Your task to perform on an android device: Open Amazon Image 0: 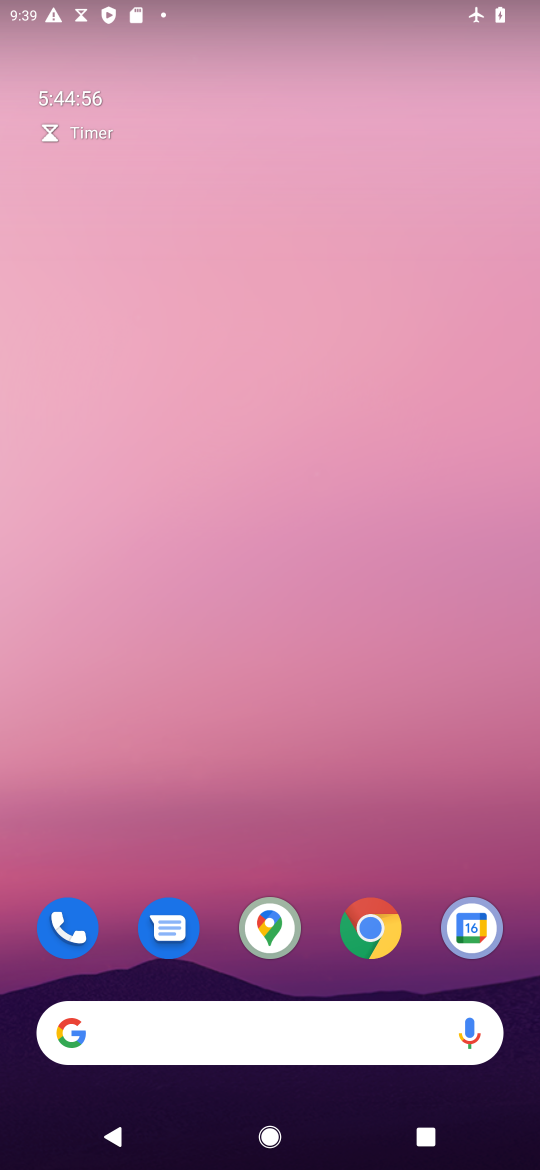
Step 0: click (82, 1029)
Your task to perform on an android device: Open Amazon Image 1: 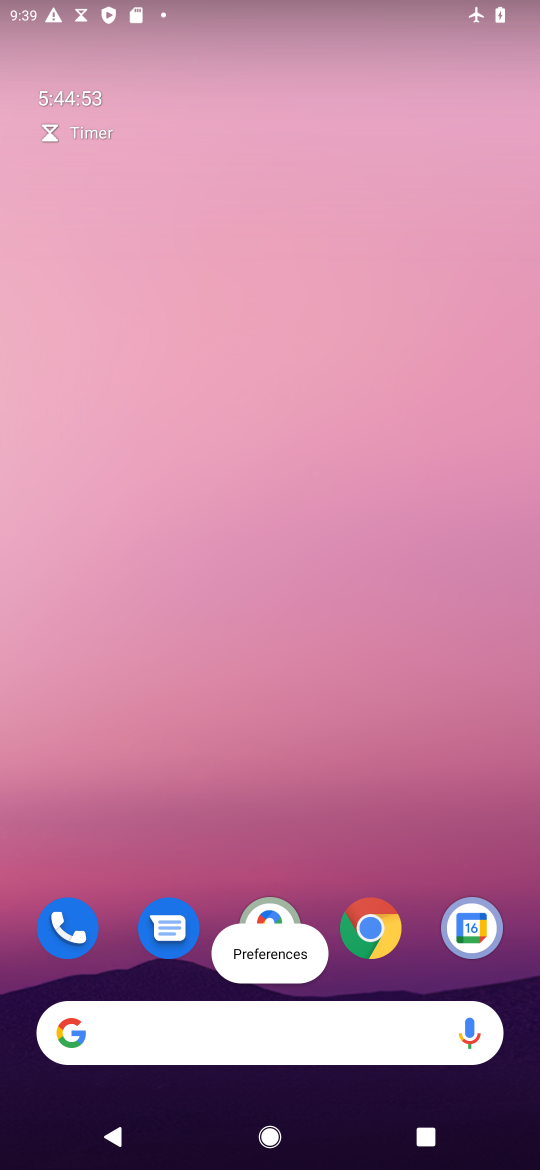
Step 1: click (82, 1029)
Your task to perform on an android device: Open Amazon Image 2: 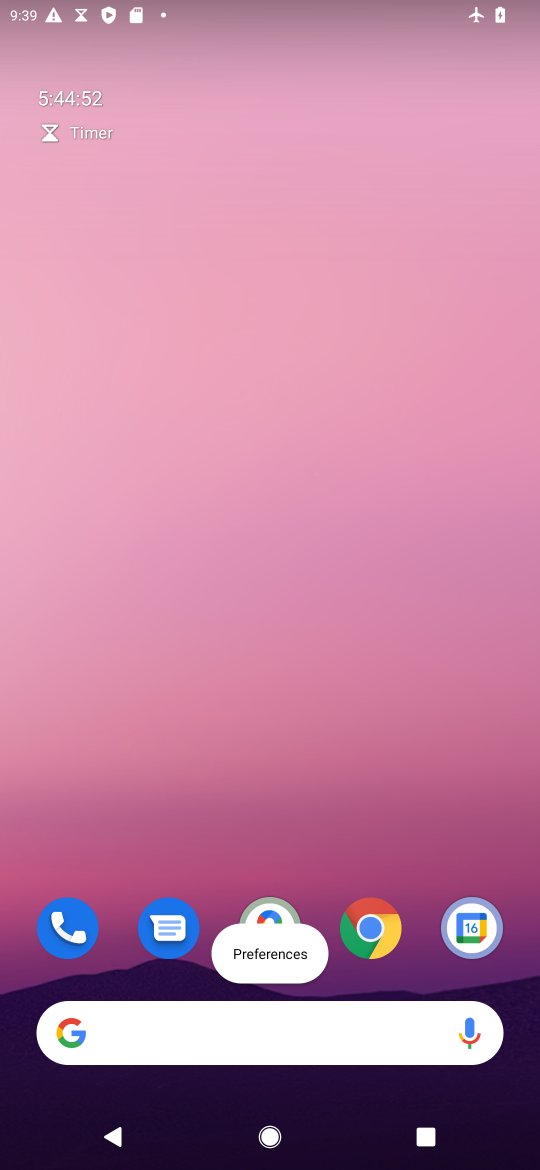
Step 2: click (74, 1034)
Your task to perform on an android device: Open Amazon Image 3: 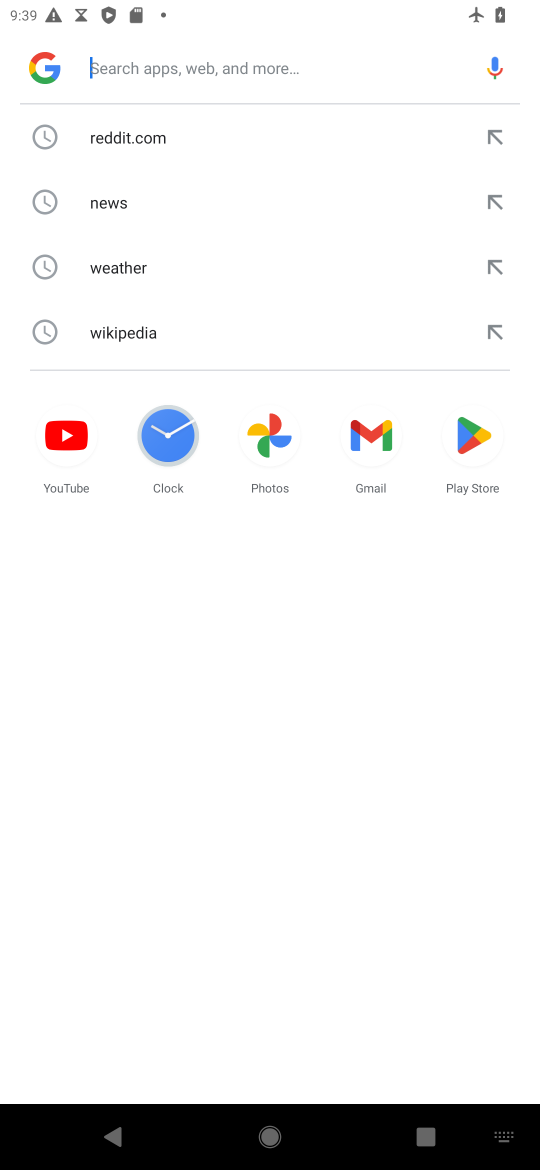
Step 3: type " Amazon"
Your task to perform on an android device: Open Amazon Image 4: 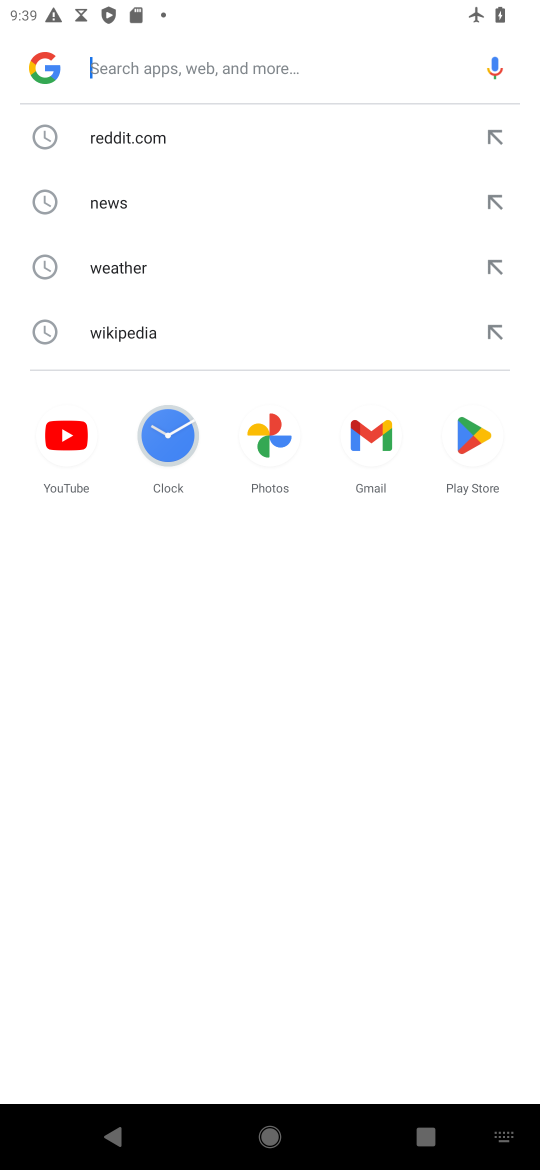
Step 4: click (138, 74)
Your task to perform on an android device: Open Amazon Image 5: 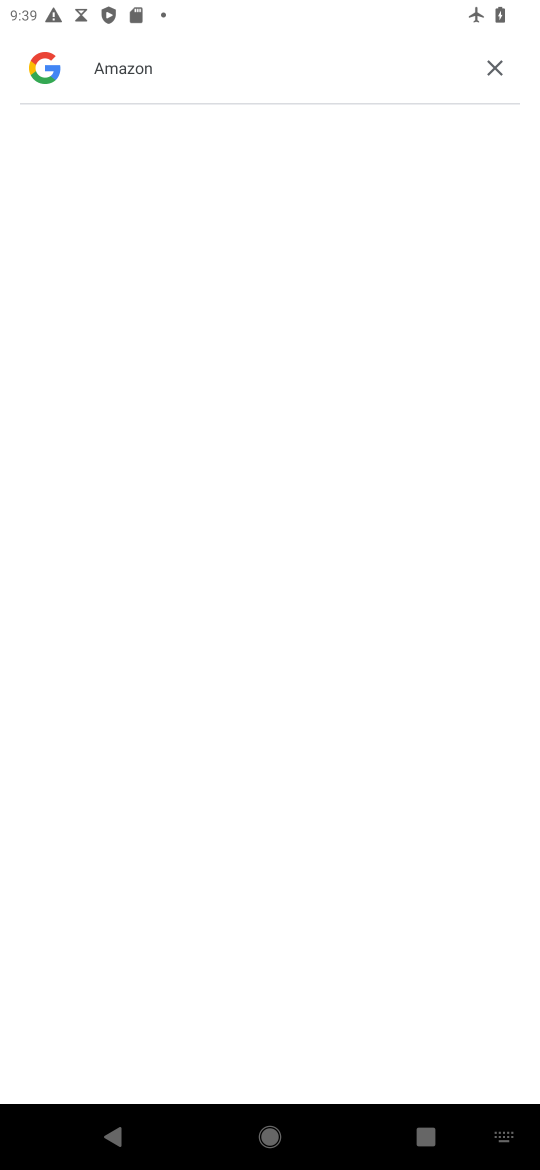
Step 5: click (229, 76)
Your task to perform on an android device: Open Amazon Image 6: 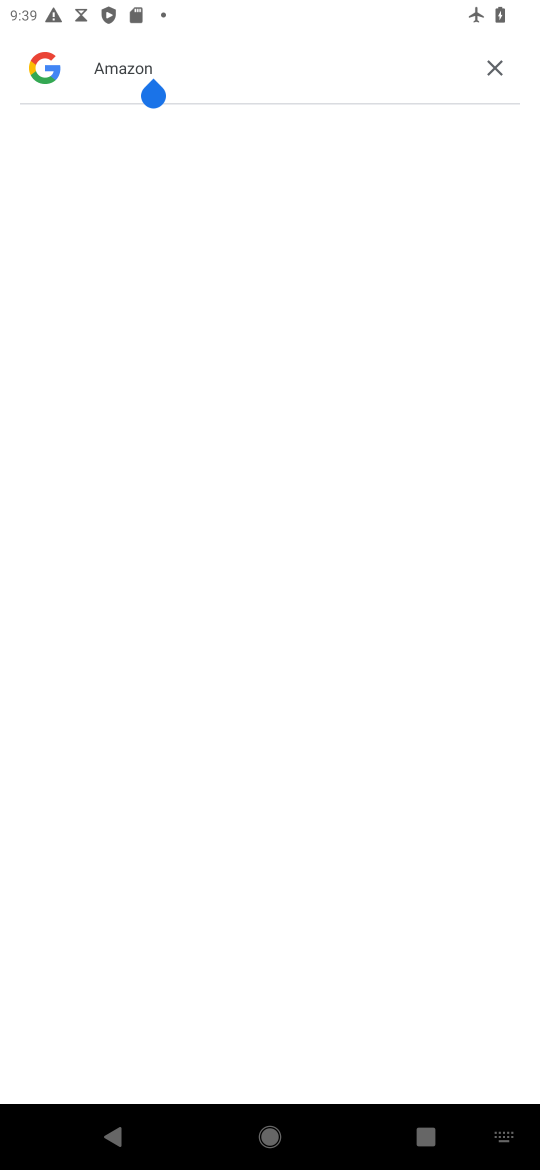
Step 6: press enter
Your task to perform on an android device: Open Amazon Image 7: 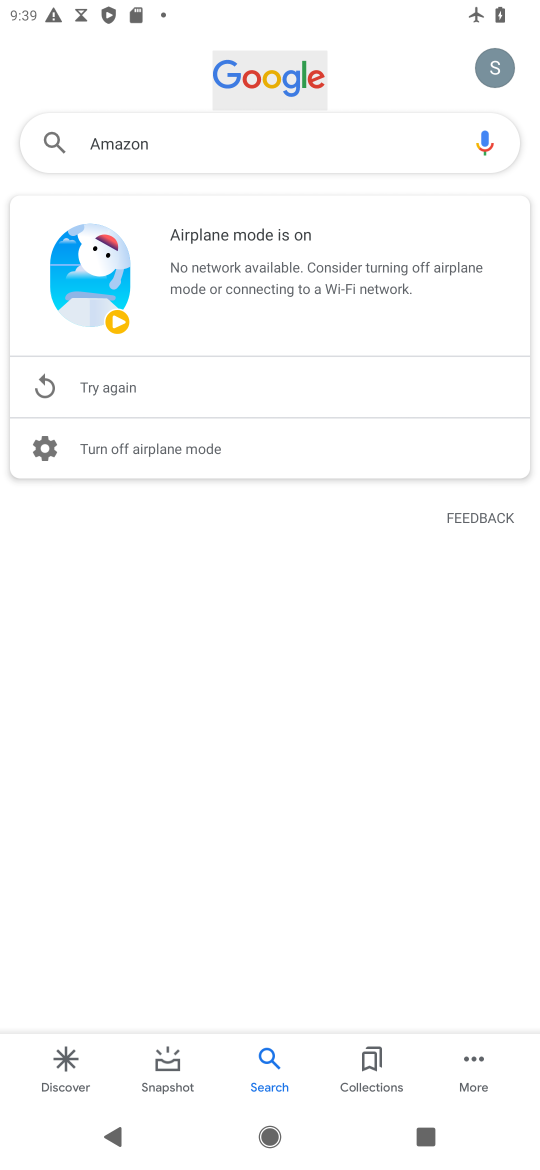
Step 7: drag from (307, 2) to (268, 1169)
Your task to perform on an android device: Open Amazon Image 8: 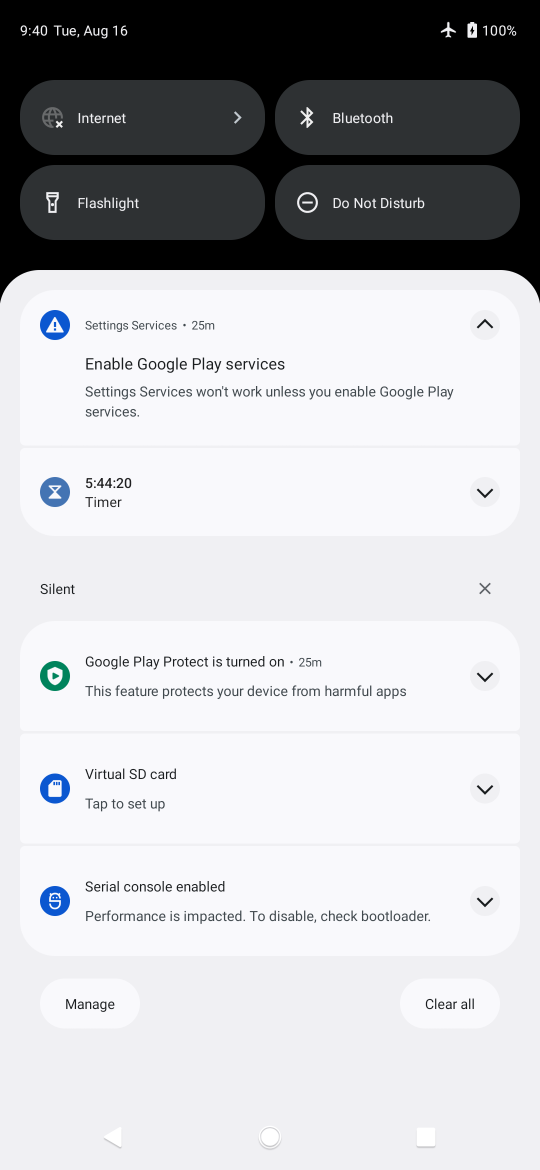
Step 8: press home button
Your task to perform on an android device: Open Amazon Image 9: 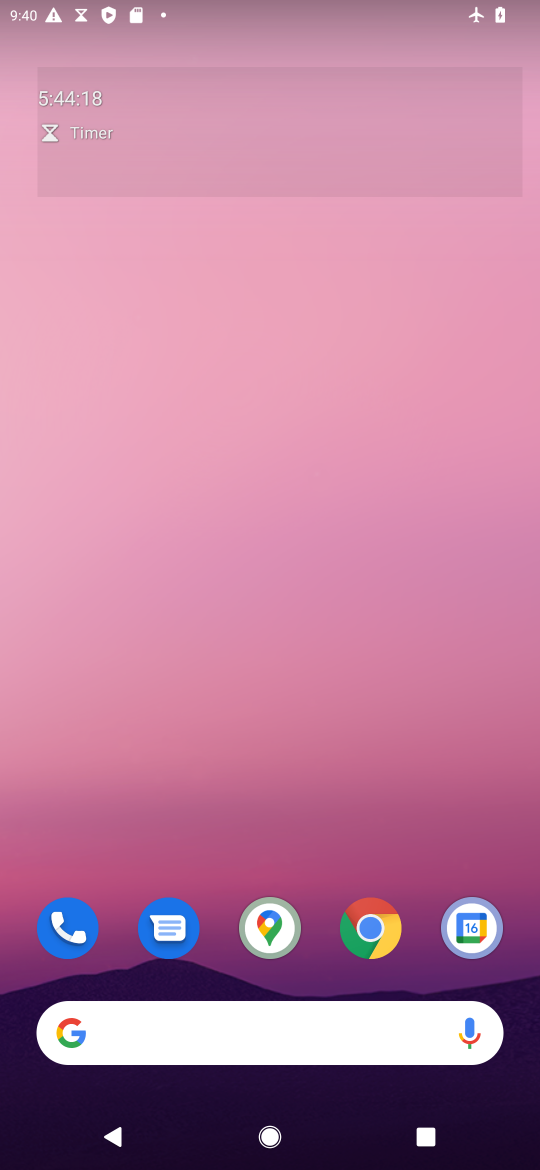
Step 9: drag from (319, 839) to (329, 249)
Your task to perform on an android device: Open Amazon Image 10: 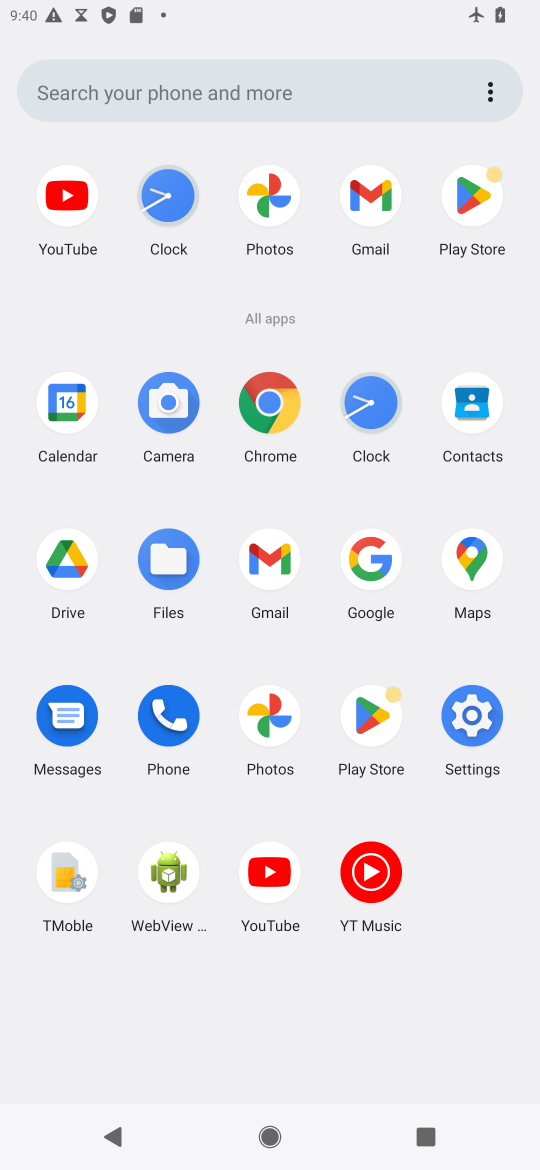
Step 10: click (477, 722)
Your task to perform on an android device: Open Amazon Image 11: 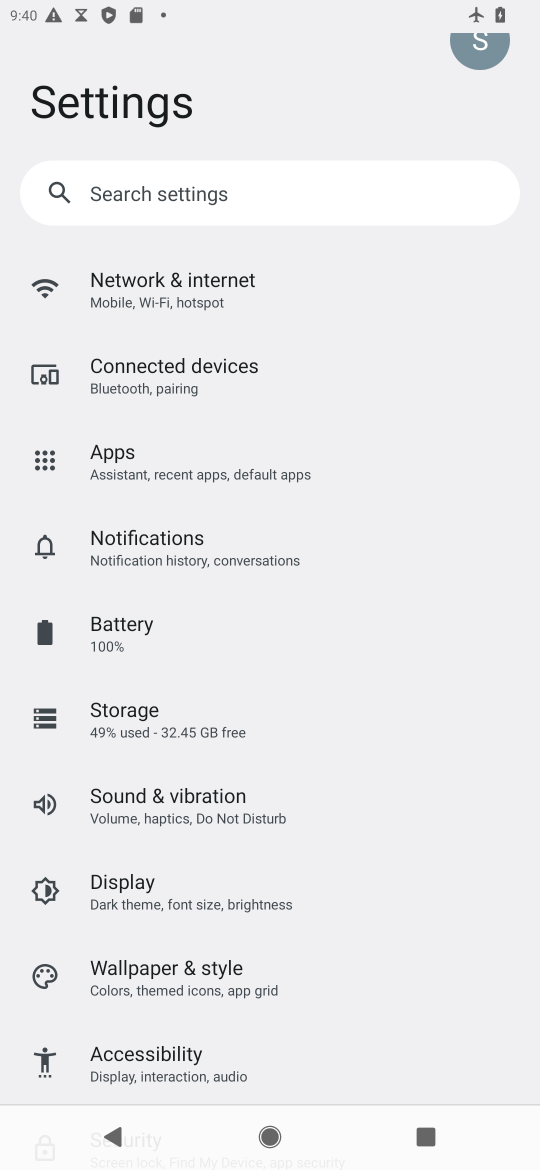
Step 11: click (235, 292)
Your task to perform on an android device: Open Amazon Image 12: 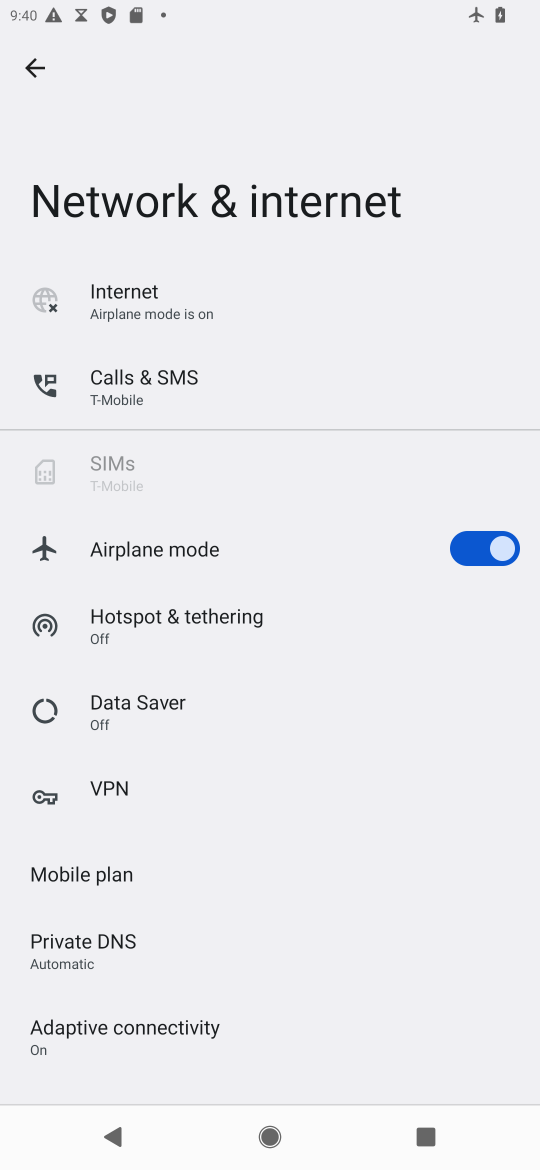
Step 12: click (486, 557)
Your task to perform on an android device: Open Amazon Image 13: 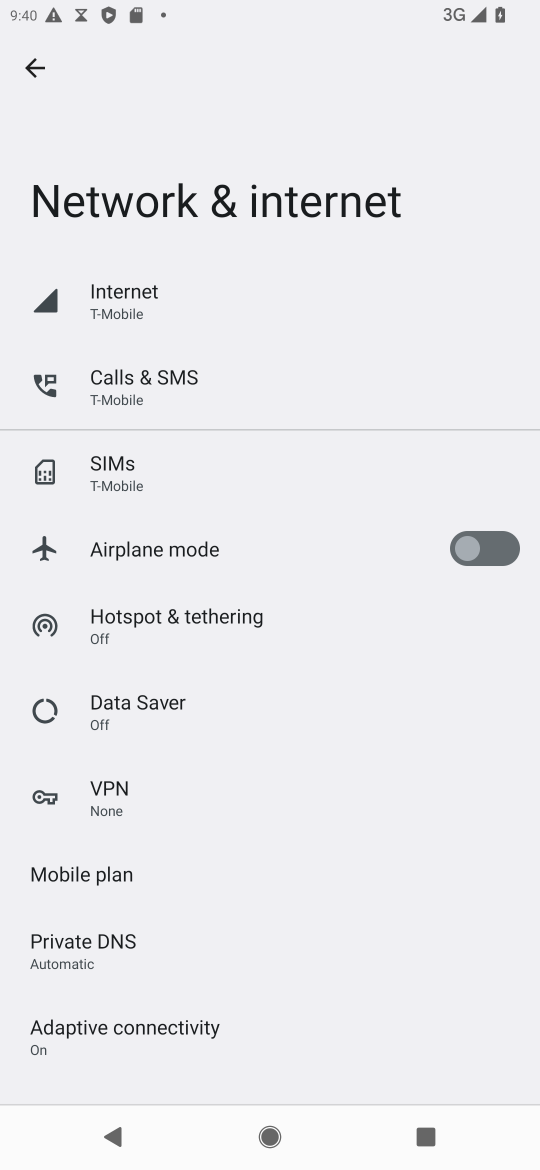
Step 13: press home button
Your task to perform on an android device: Open Amazon Image 14: 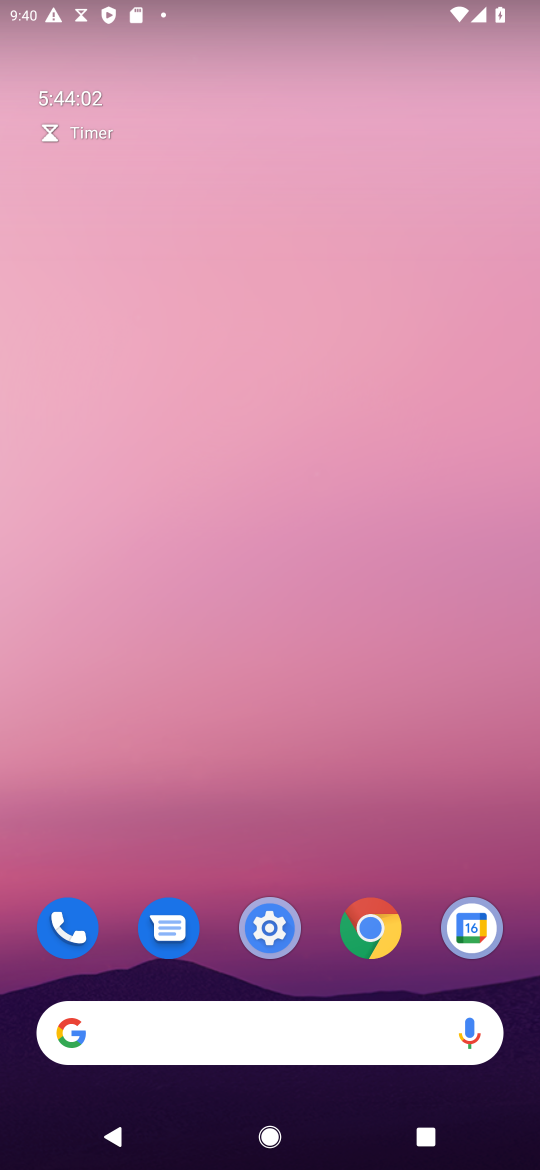
Step 14: click (54, 1028)
Your task to perform on an android device: Open Amazon Image 15: 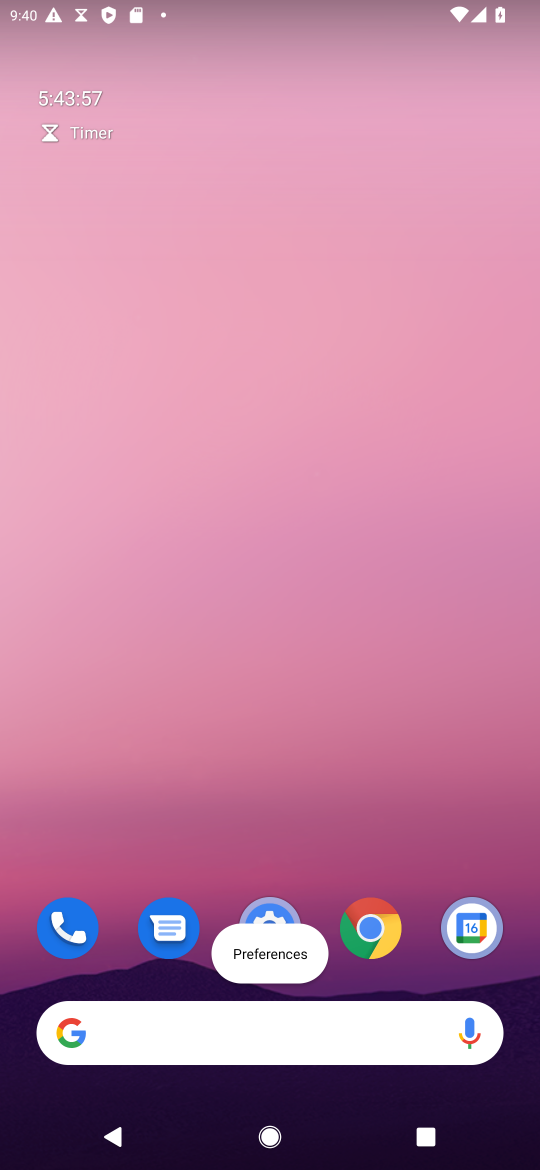
Step 15: click (56, 1035)
Your task to perform on an android device: Open Amazon Image 16: 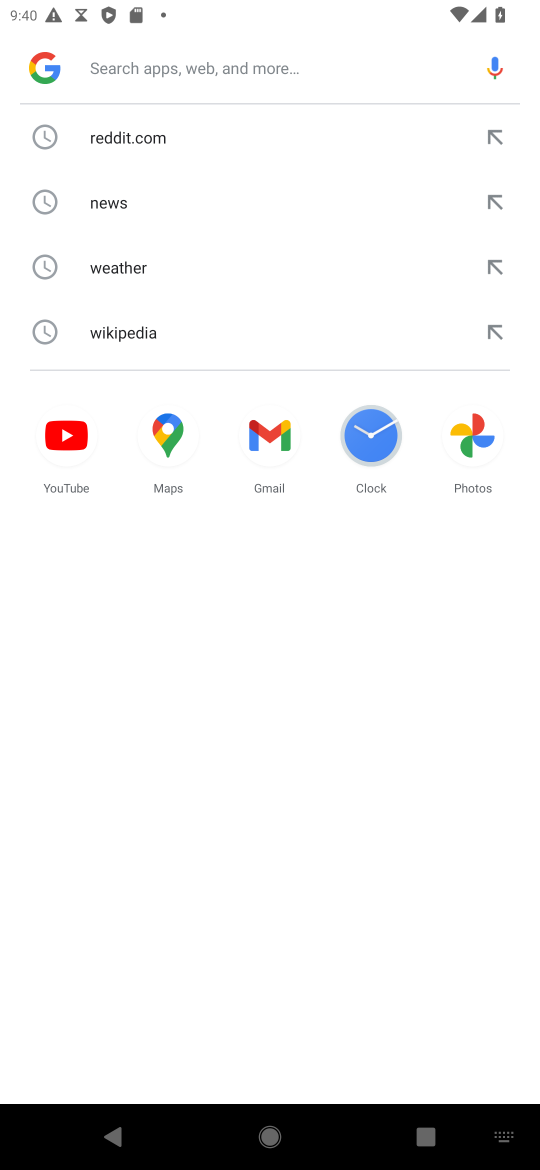
Step 16: type " Amazon"
Your task to perform on an android device: Open Amazon Image 17: 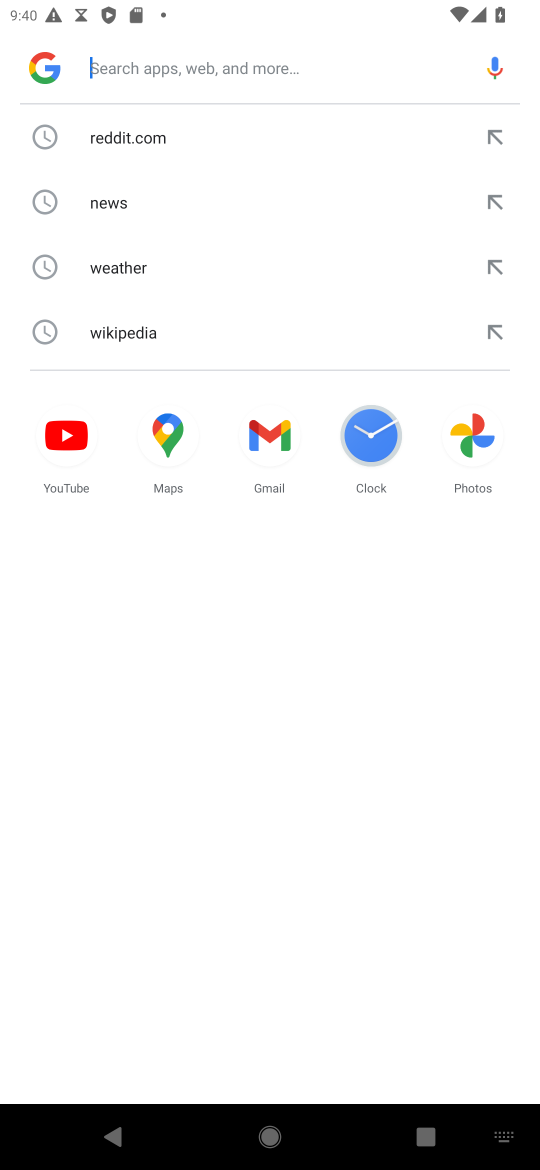
Step 17: click (141, 65)
Your task to perform on an android device: Open Amazon Image 18: 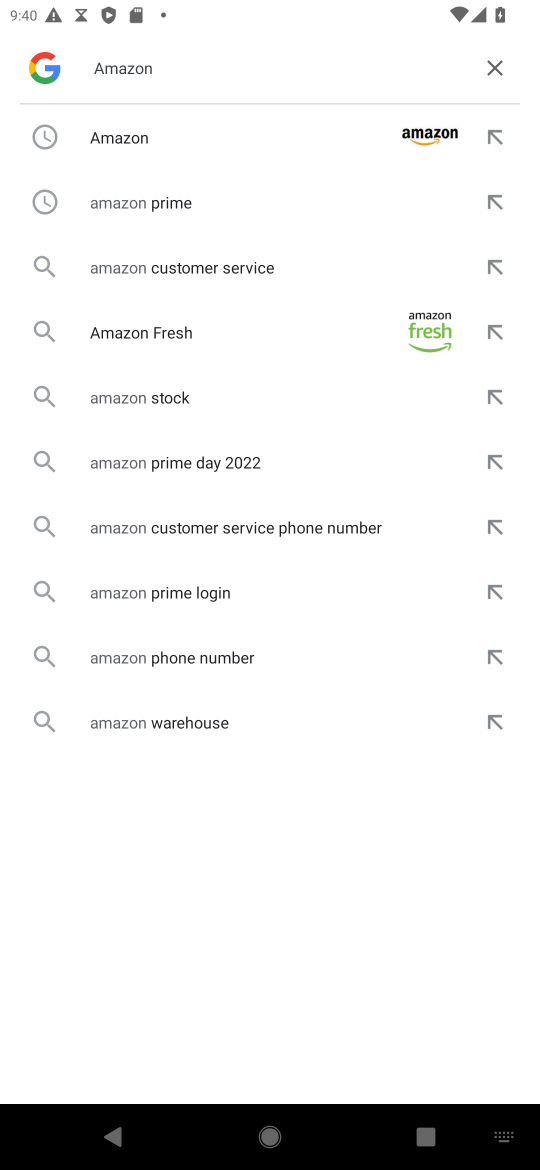
Step 18: press enter
Your task to perform on an android device: Open Amazon Image 19: 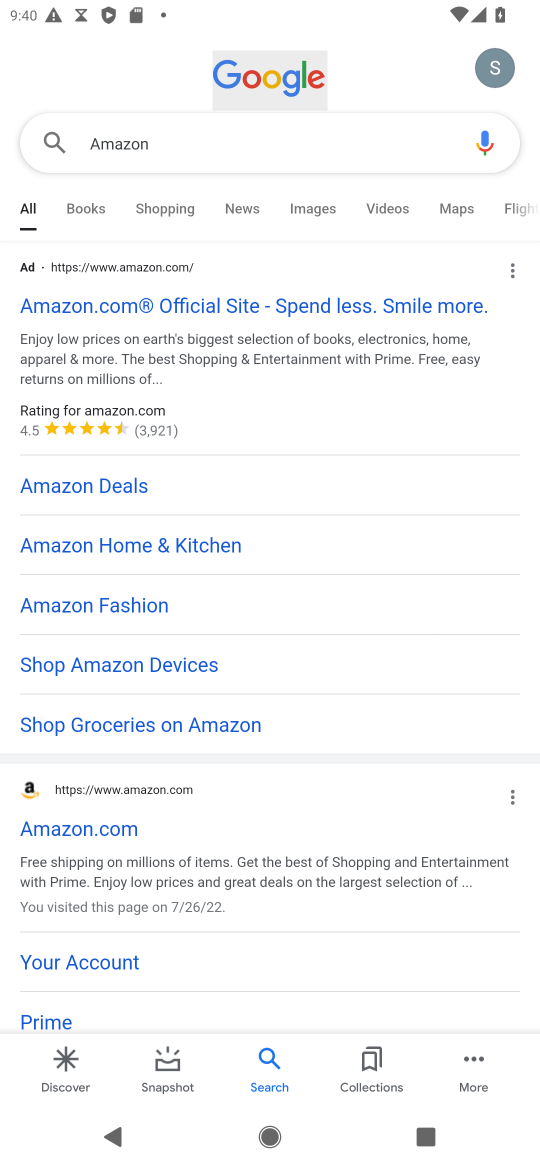
Step 19: click (99, 825)
Your task to perform on an android device: Open Amazon Image 20: 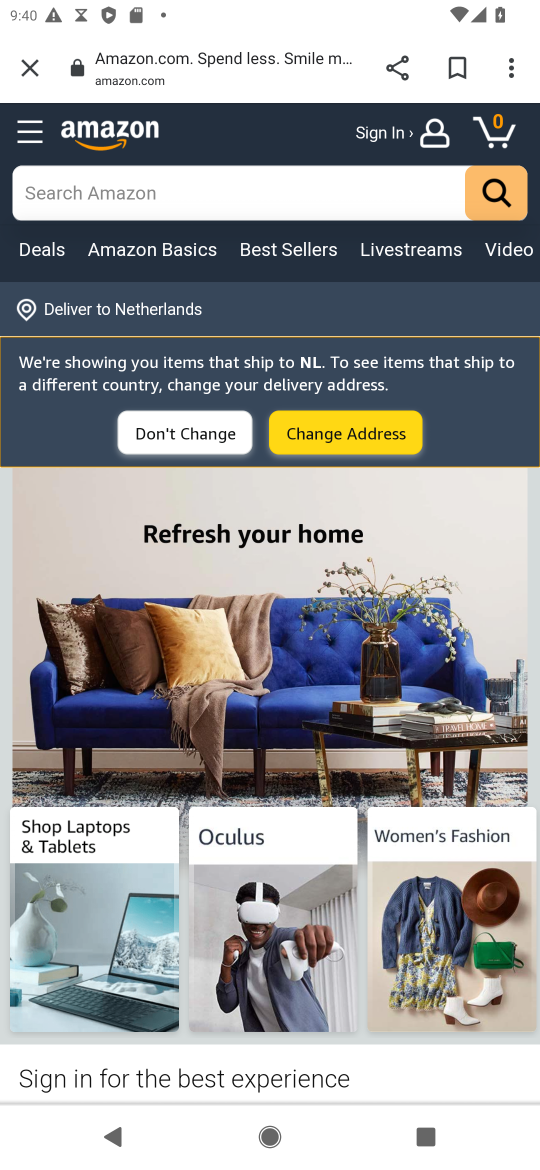
Step 20: task complete